Your task to perform on an android device: Open Yahoo.com Image 0: 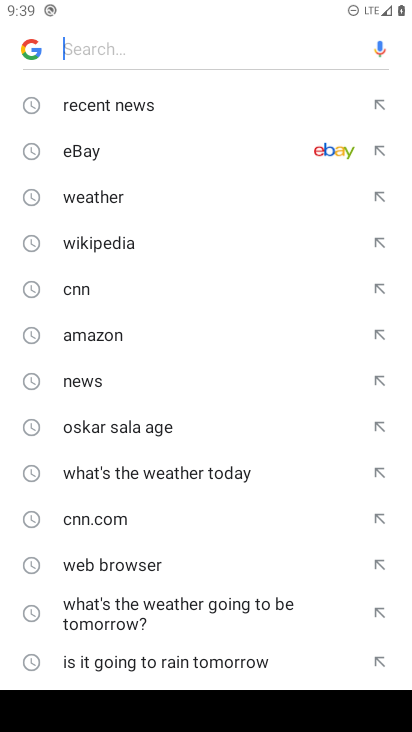
Step 0: press home button
Your task to perform on an android device: Open Yahoo.com Image 1: 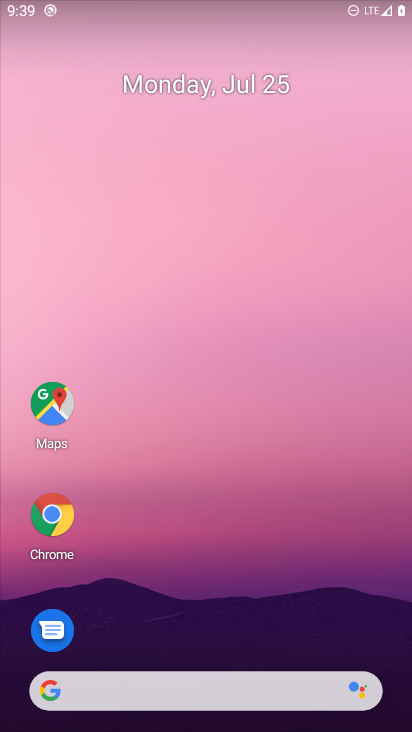
Step 1: click (144, 689)
Your task to perform on an android device: Open Yahoo.com Image 2: 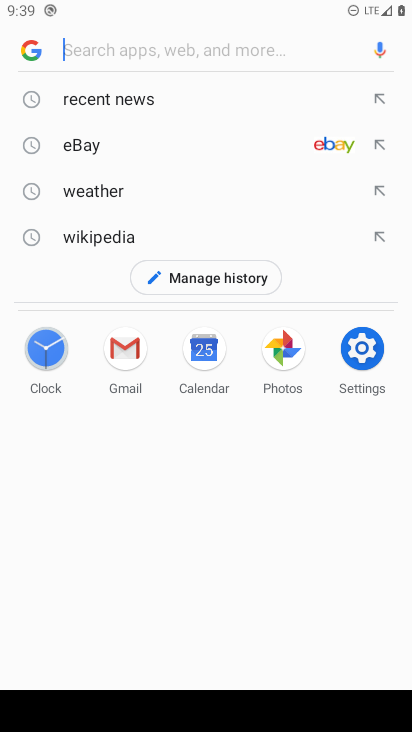
Step 2: type "Yahoo.com"
Your task to perform on an android device: Open Yahoo.com Image 3: 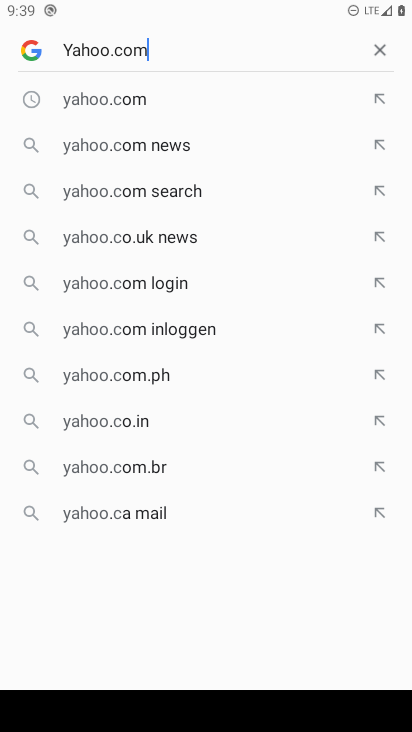
Step 3: type ""
Your task to perform on an android device: Open Yahoo.com Image 4: 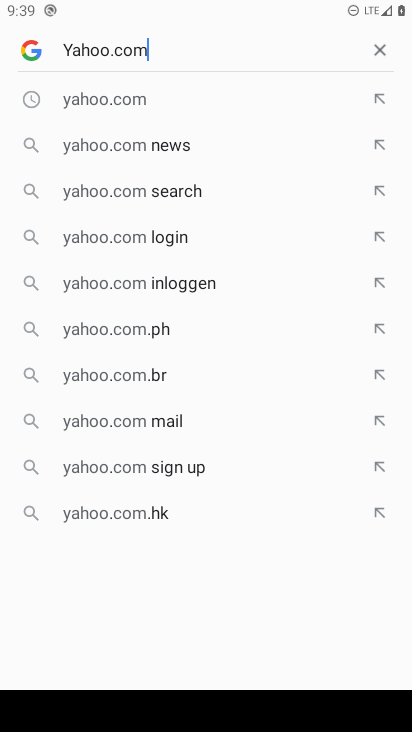
Step 4: click (110, 97)
Your task to perform on an android device: Open Yahoo.com Image 5: 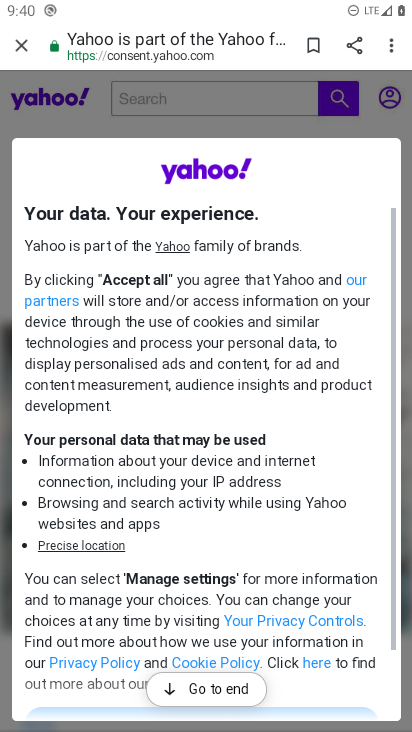
Step 5: task complete